Your task to perform on an android device: turn on sleep mode Image 0: 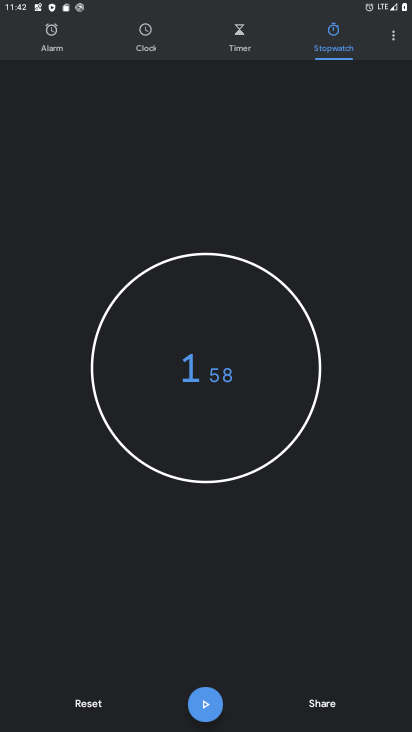
Step 0: press home button
Your task to perform on an android device: turn on sleep mode Image 1: 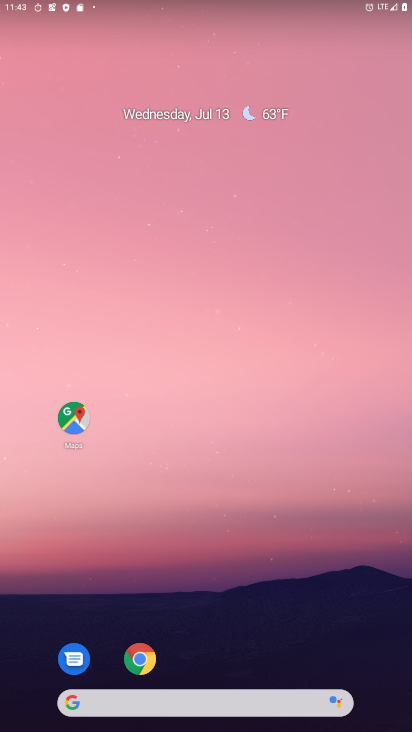
Step 1: drag from (261, 562) to (213, 8)
Your task to perform on an android device: turn on sleep mode Image 2: 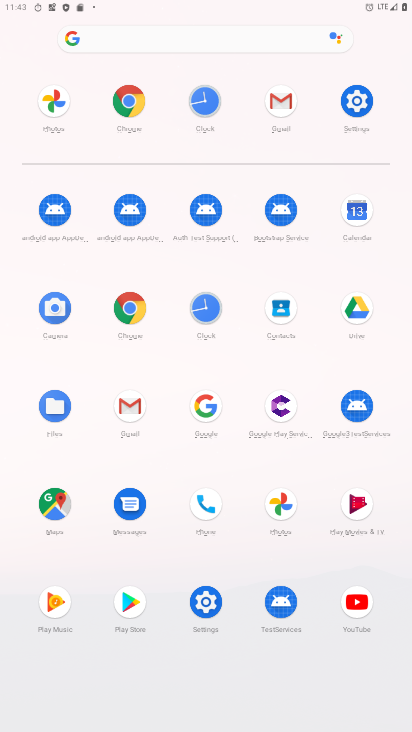
Step 2: click (366, 99)
Your task to perform on an android device: turn on sleep mode Image 3: 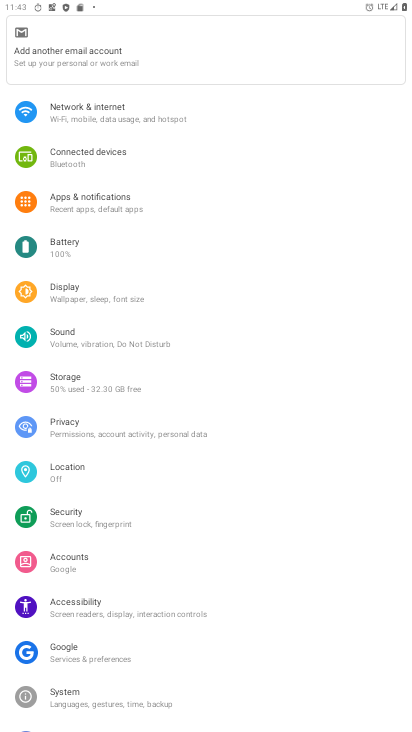
Step 3: click (85, 305)
Your task to perform on an android device: turn on sleep mode Image 4: 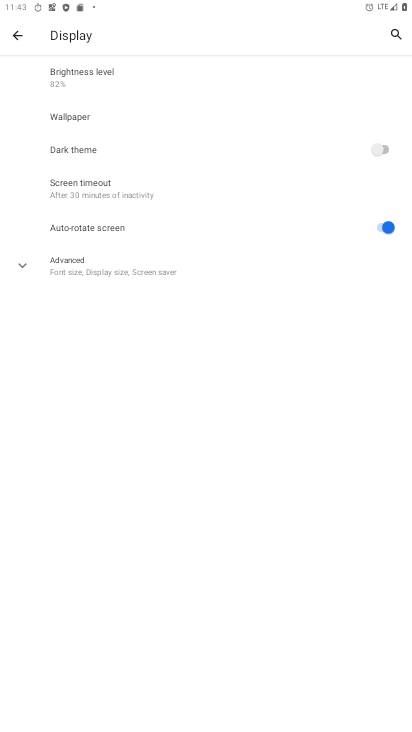
Step 4: click (100, 194)
Your task to perform on an android device: turn on sleep mode Image 5: 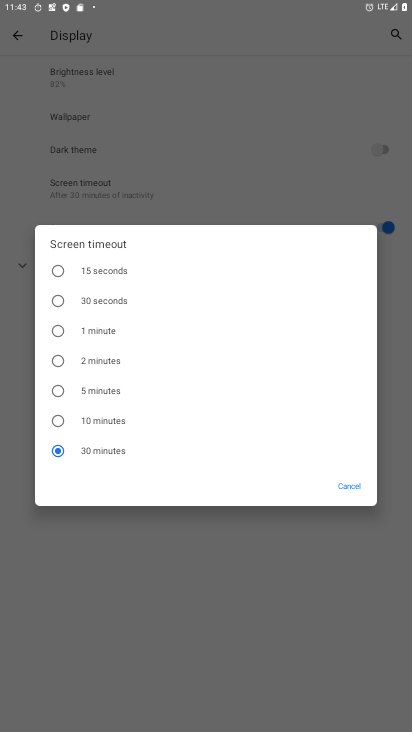
Step 5: task complete